Your task to perform on an android device: refresh tabs in the chrome app Image 0: 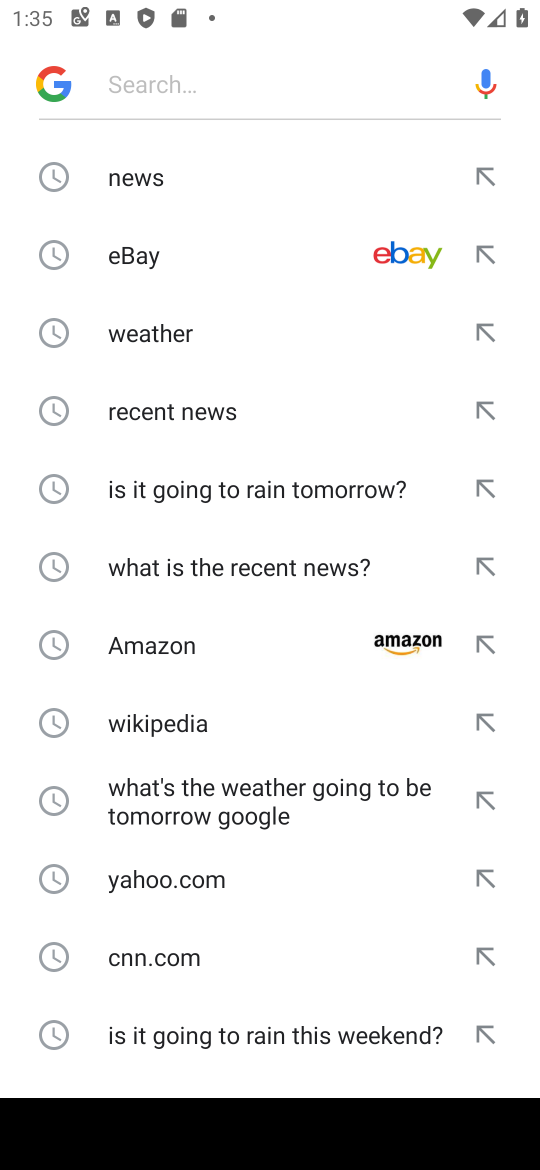
Step 0: press home button
Your task to perform on an android device: refresh tabs in the chrome app Image 1: 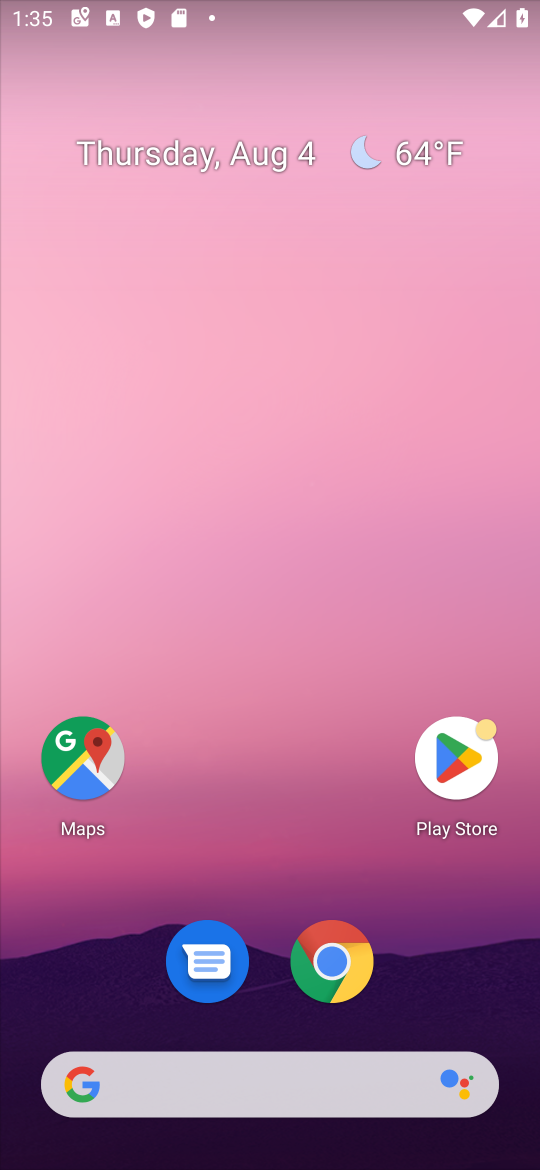
Step 1: click (336, 940)
Your task to perform on an android device: refresh tabs in the chrome app Image 2: 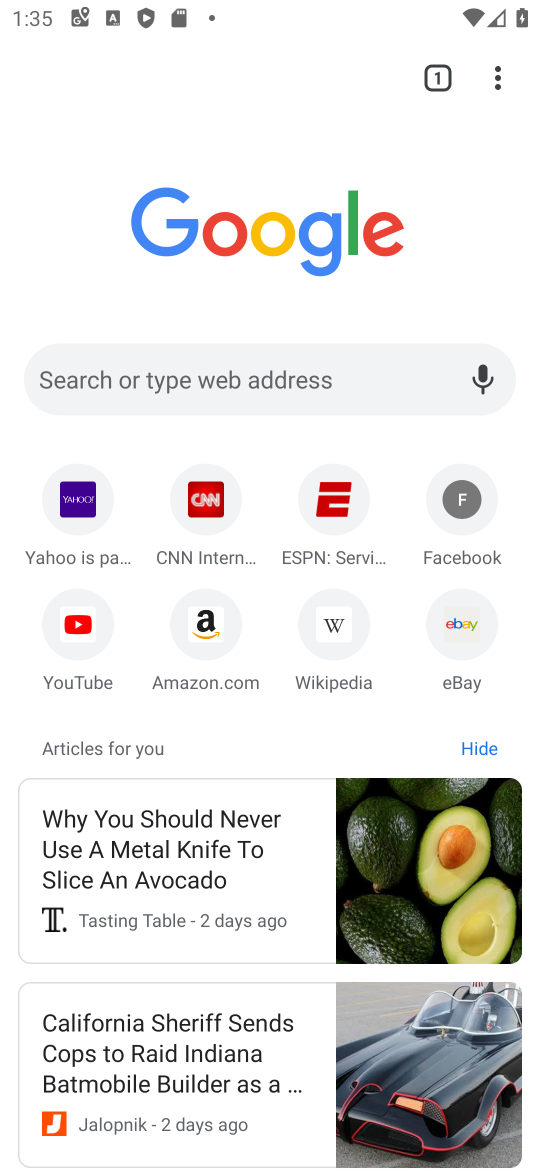
Step 2: click (500, 82)
Your task to perform on an android device: refresh tabs in the chrome app Image 3: 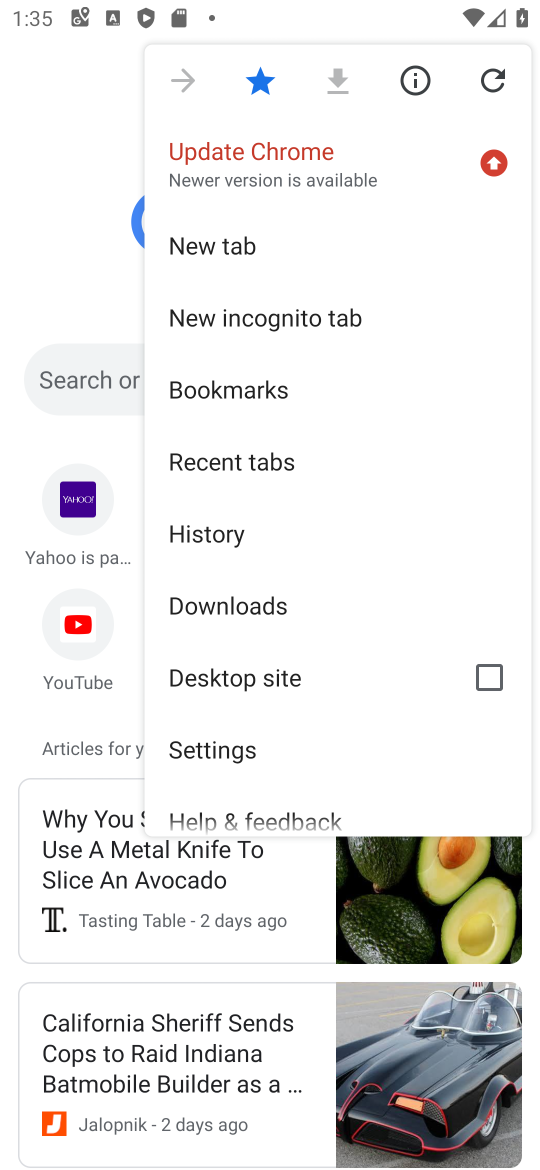
Step 3: click (491, 74)
Your task to perform on an android device: refresh tabs in the chrome app Image 4: 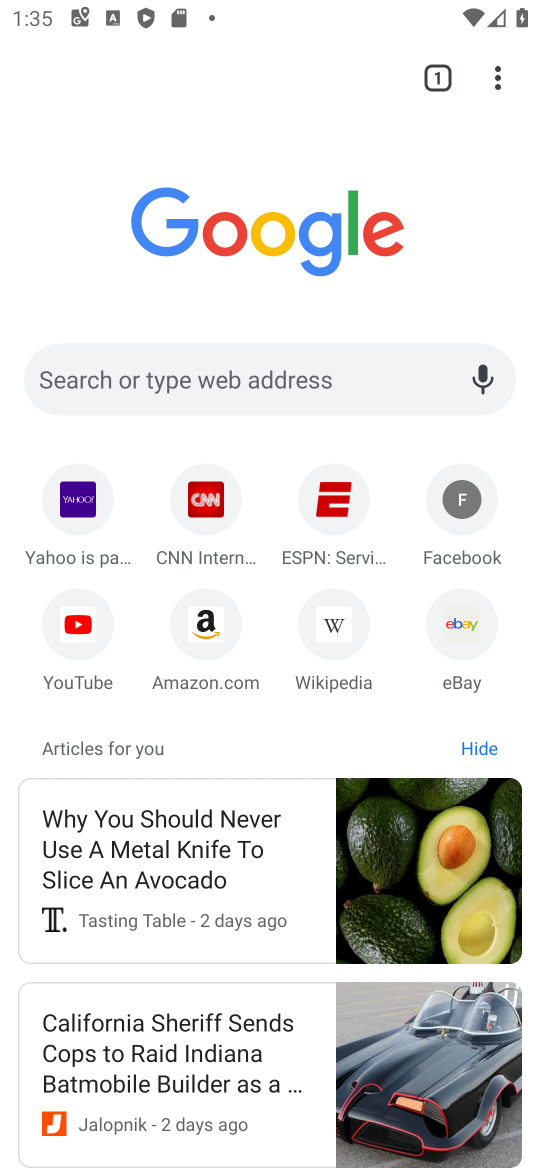
Step 4: task complete